Your task to perform on an android device: snooze an email in the gmail app Image 0: 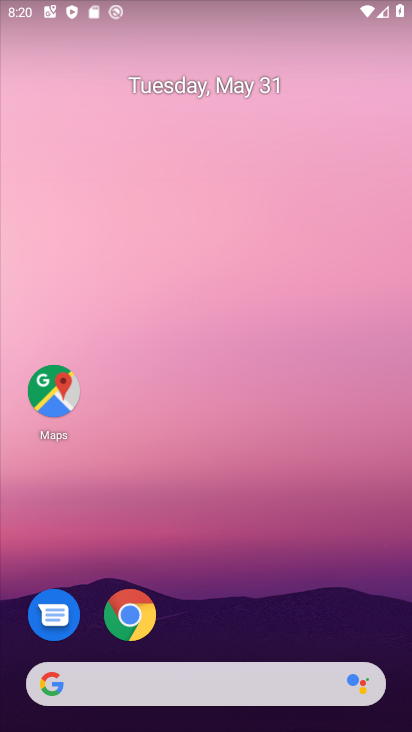
Step 0: drag from (319, 618) to (257, 29)
Your task to perform on an android device: snooze an email in the gmail app Image 1: 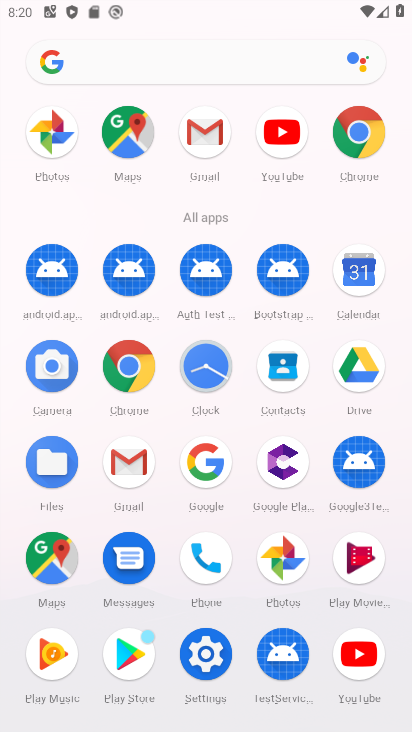
Step 1: click (125, 460)
Your task to perform on an android device: snooze an email in the gmail app Image 2: 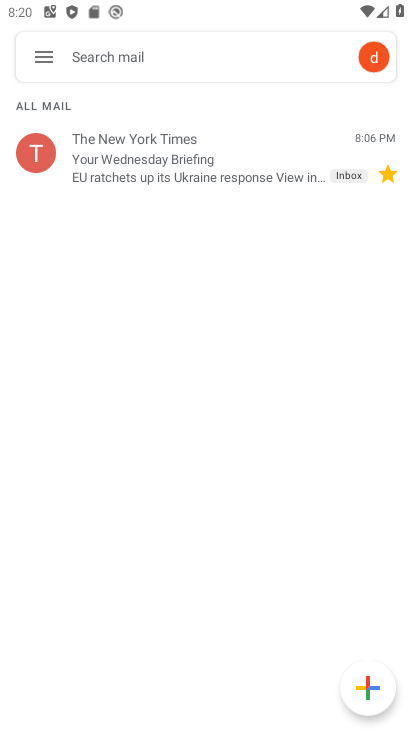
Step 2: click (43, 51)
Your task to perform on an android device: snooze an email in the gmail app Image 3: 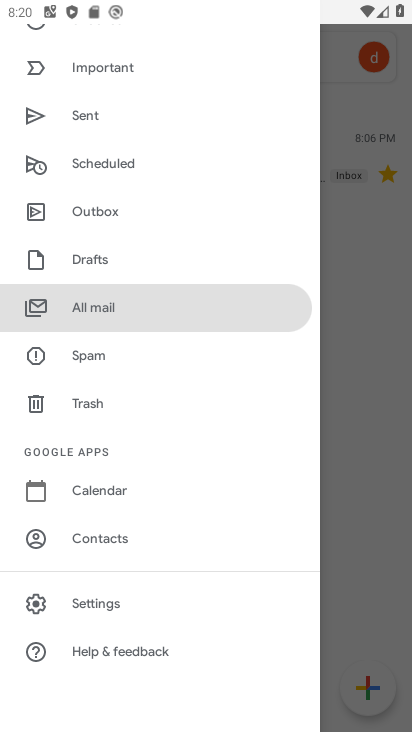
Step 3: click (379, 331)
Your task to perform on an android device: snooze an email in the gmail app Image 4: 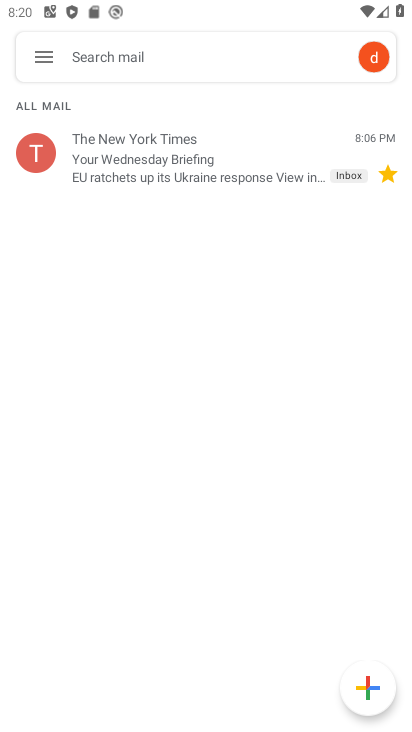
Step 4: click (273, 160)
Your task to perform on an android device: snooze an email in the gmail app Image 5: 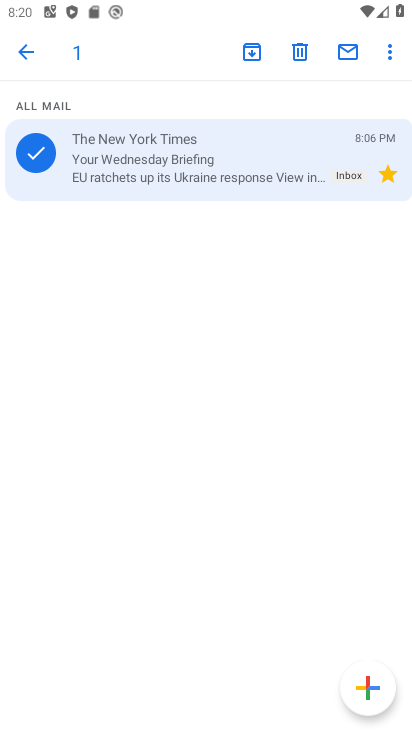
Step 5: click (393, 53)
Your task to perform on an android device: snooze an email in the gmail app Image 6: 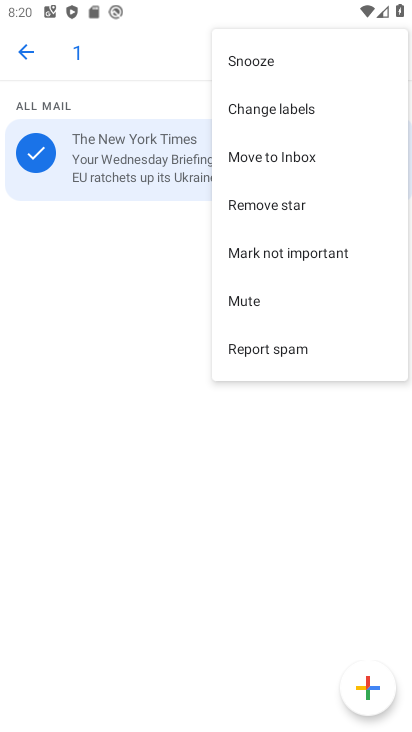
Step 6: click (254, 59)
Your task to perform on an android device: snooze an email in the gmail app Image 7: 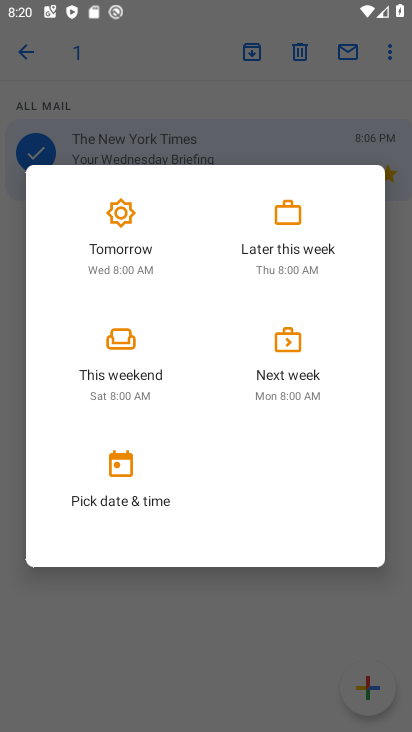
Step 7: click (124, 226)
Your task to perform on an android device: snooze an email in the gmail app Image 8: 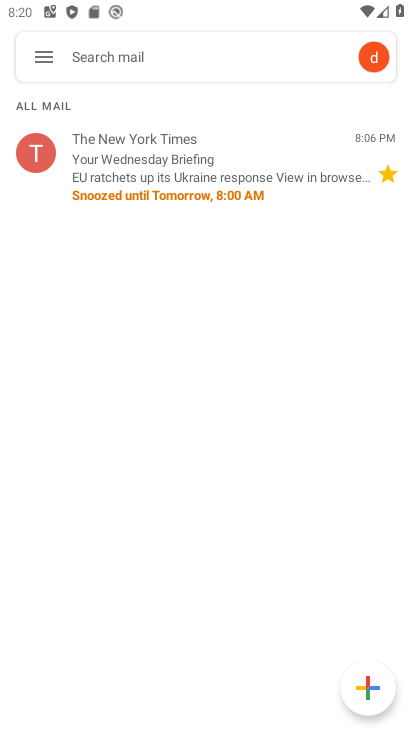
Step 8: task complete